Your task to perform on an android device: turn on data saver in the chrome app Image 0: 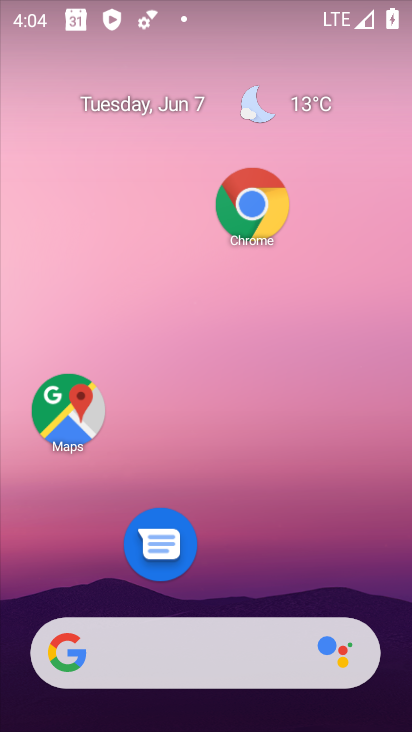
Step 0: click (258, 199)
Your task to perform on an android device: turn on data saver in the chrome app Image 1: 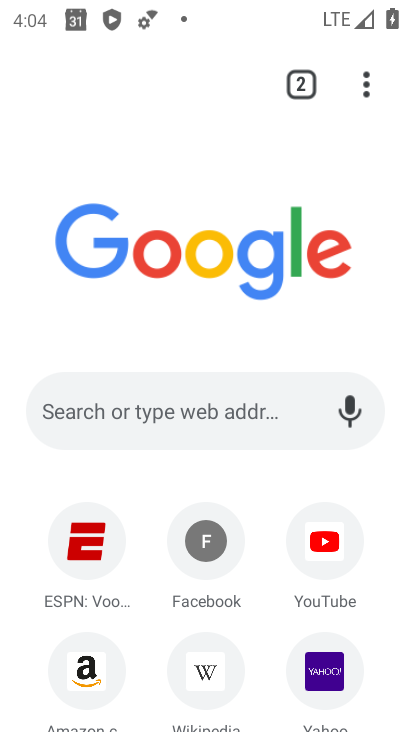
Step 1: click (366, 73)
Your task to perform on an android device: turn on data saver in the chrome app Image 2: 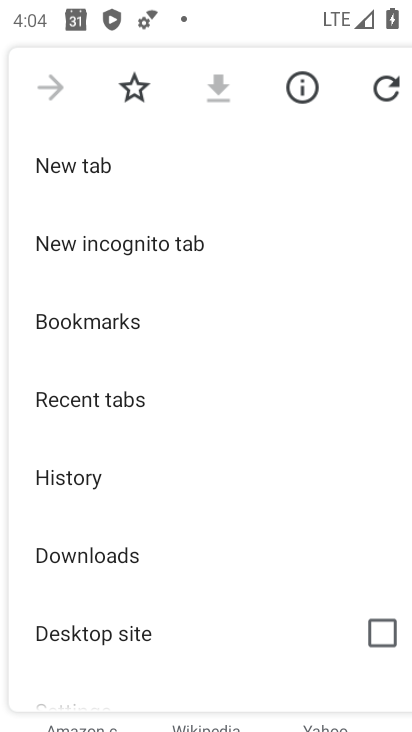
Step 2: drag from (179, 630) to (176, 261)
Your task to perform on an android device: turn on data saver in the chrome app Image 3: 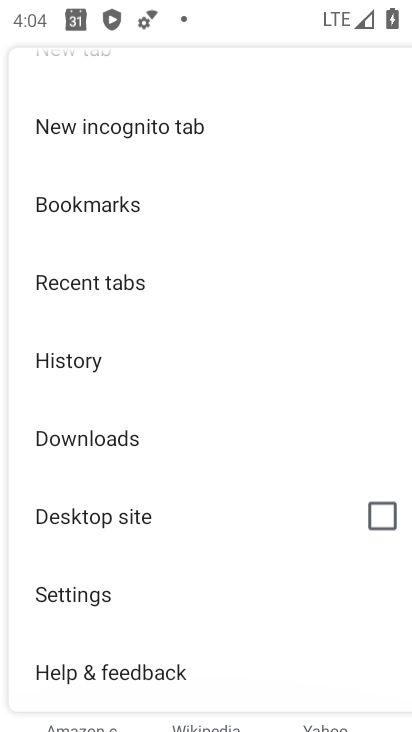
Step 3: click (185, 212)
Your task to perform on an android device: turn on data saver in the chrome app Image 4: 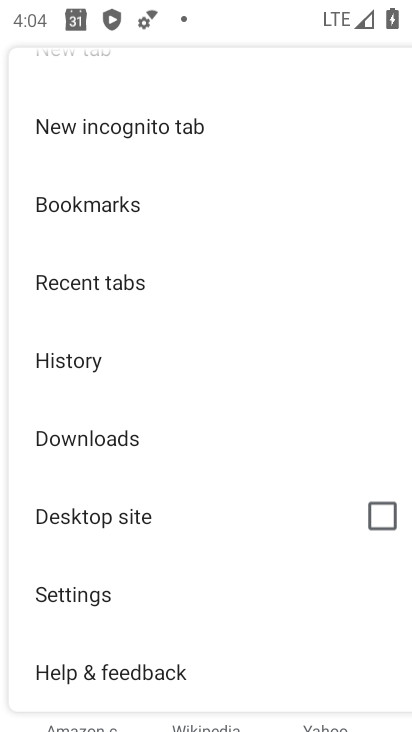
Step 4: click (136, 592)
Your task to perform on an android device: turn on data saver in the chrome app Image 5: 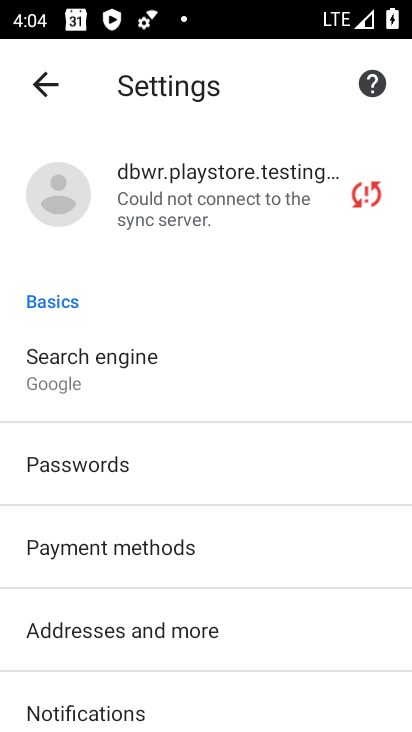
Step 5: drag from (200, 672) to (208, 574)
Your task to perform on an android device: turn on data saver in the chrome app Image 6: 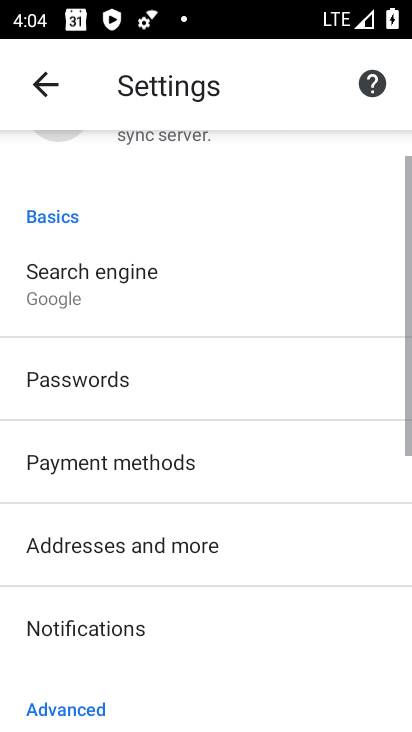
Step 6: drag from (225, 382) to (237, 170)
Your task to perform on an android device: turn on data saver in the chrome app Image 7: 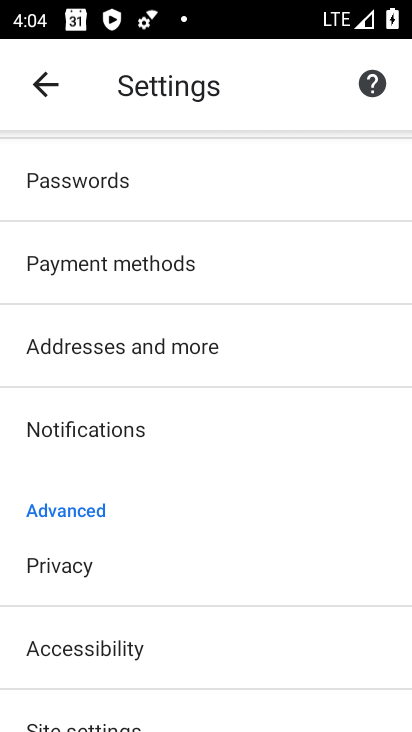
Step 7: drag from (194, 648) to (243, 141)
Your task to perform on an android device: turn on data saver in the chrome app Image 8: 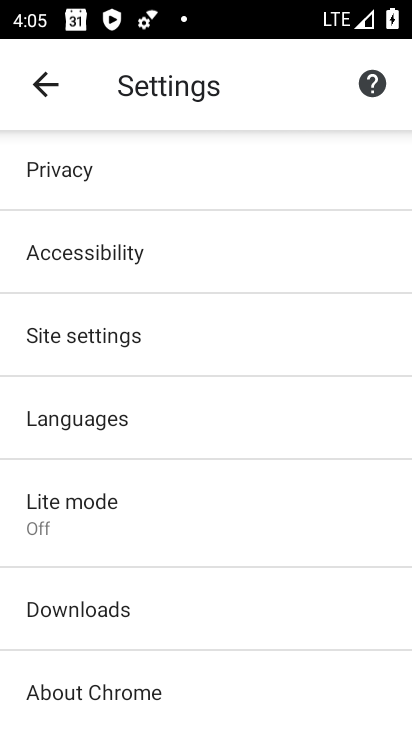
Step 8: click (126, 521)
Your task to perform on an android device: turn on data saver in the chrome app Image 9: 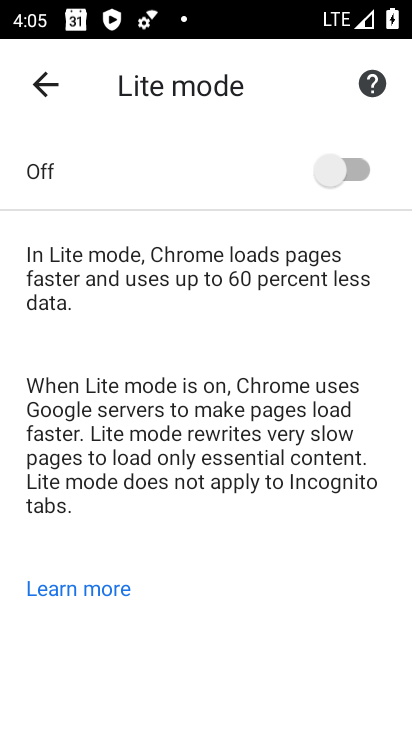
Step 9: click (350, 164)
Your task to perform on an android device: turn on data saver in the chrome app Image 10: 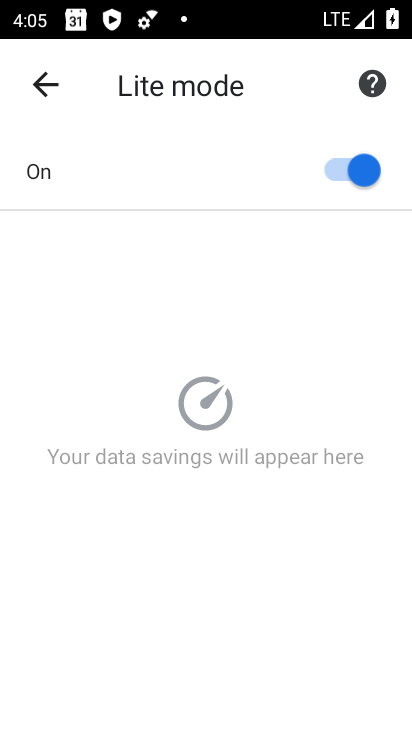
Step 10: task complete